Your task to perform on an android device: Find a good burger place on Maps Image 0: 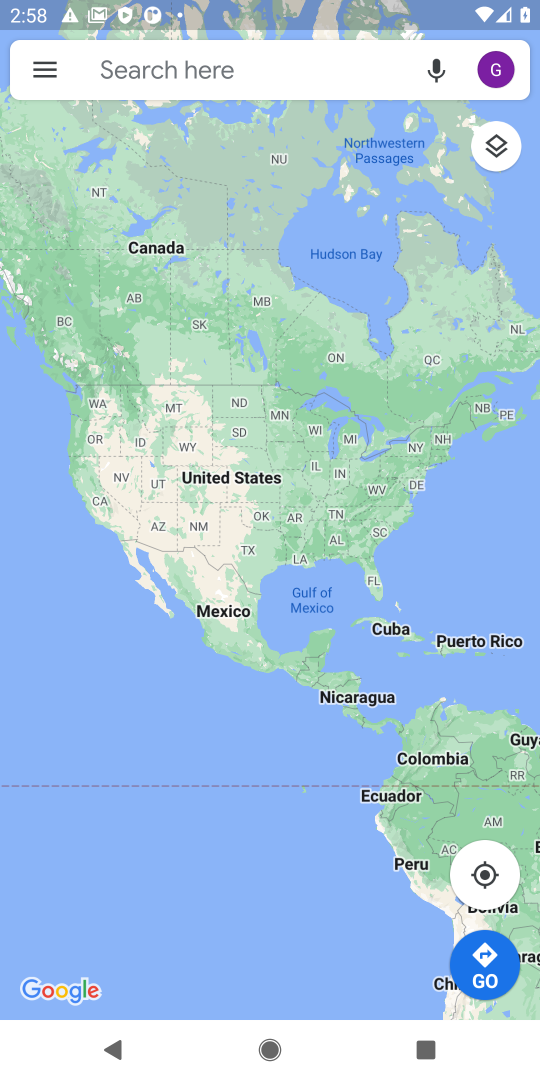
Step 0: click (248, 70)
Your task to perform on an android device: Find a good burger place on Maps Image 1: 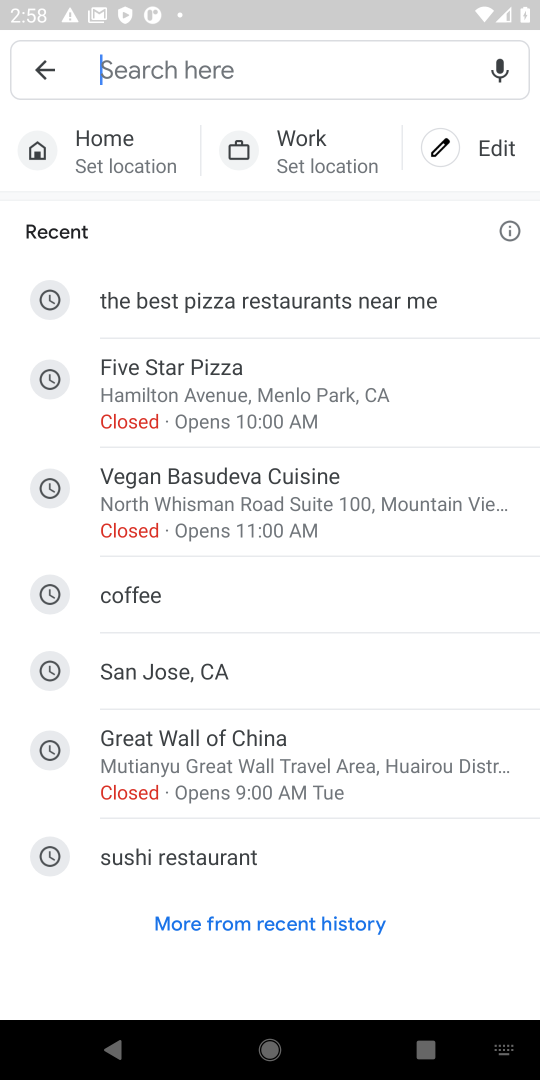
Step 1: type "burger place"
Your task to perform on an android device: Find a good burger place on Maps Image 2: 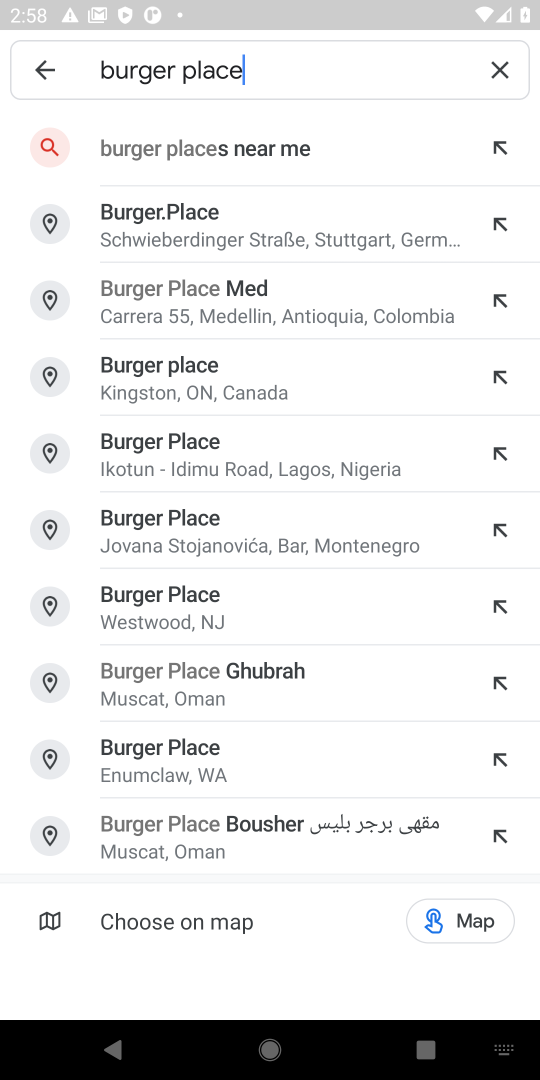
Step 2: click (297, 134)
Your task to perform on an android device: Find a good burger place on Maps Image 3: 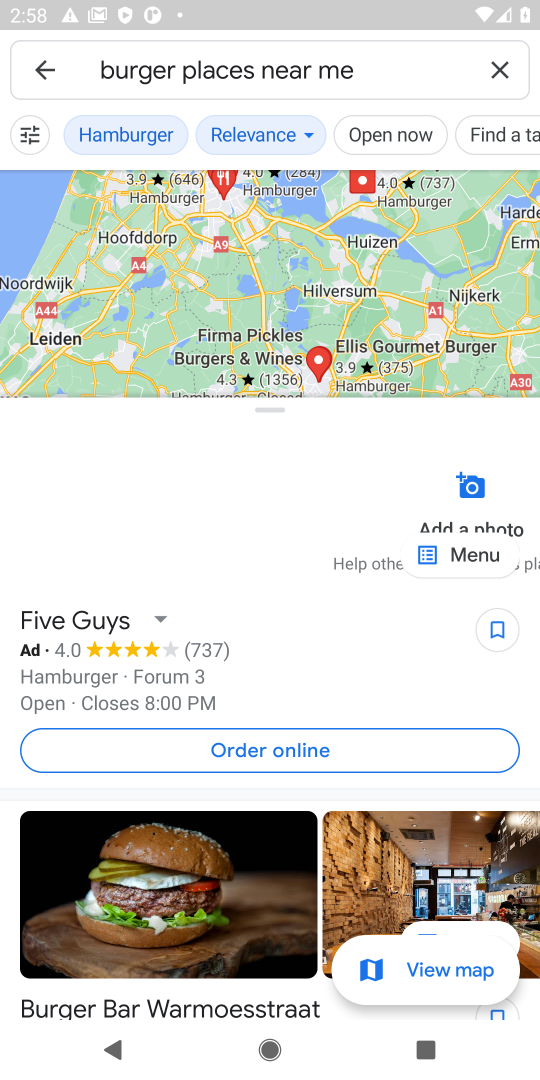
Step 3: task complete